Your task to perform on an android device: toggle translation in the chrome app Image 0: 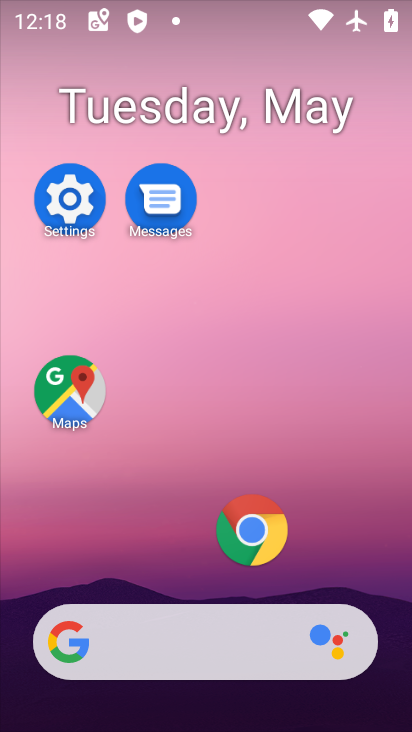
Step 0: drag from (205, 582) to (199, 213)
Your task to perform on an android device: toggle translation in the chrome app Image 1: 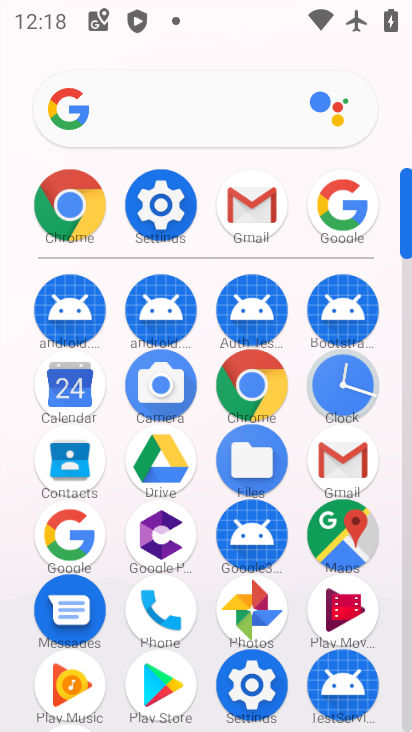
Step 1: click (254, 387)
Your task to perform on an android device: toggle translation in the chrome app Image 2: 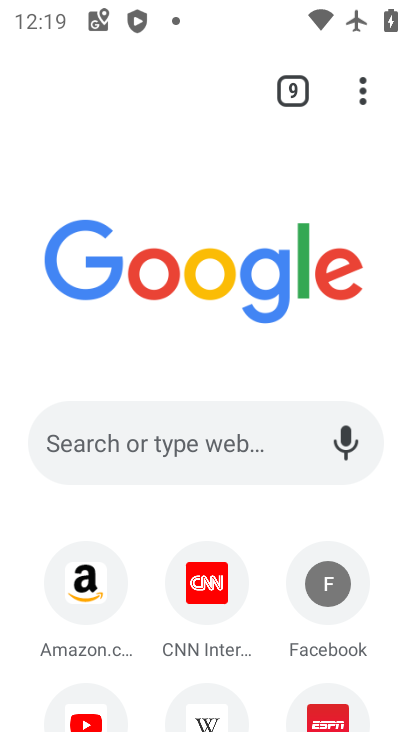
Step 2: click (364, 109)
Your task to perform on an android device: toggle translation in the chrome app Image 3: 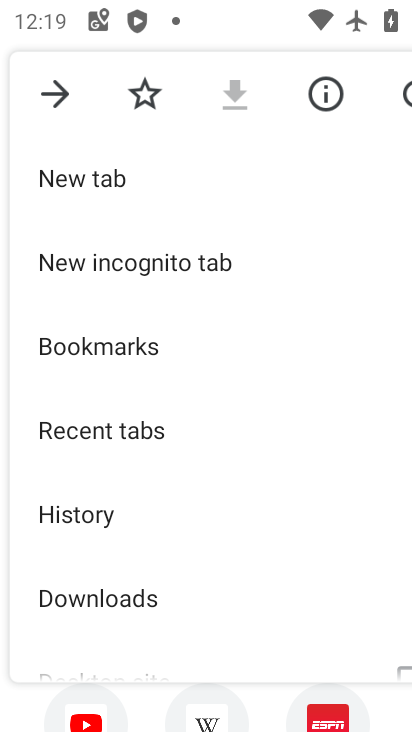
Step 3: drag from (211, 527) to (207, 141)
Your task to perform on an android device: toggle translation in the chrome app Image 4: 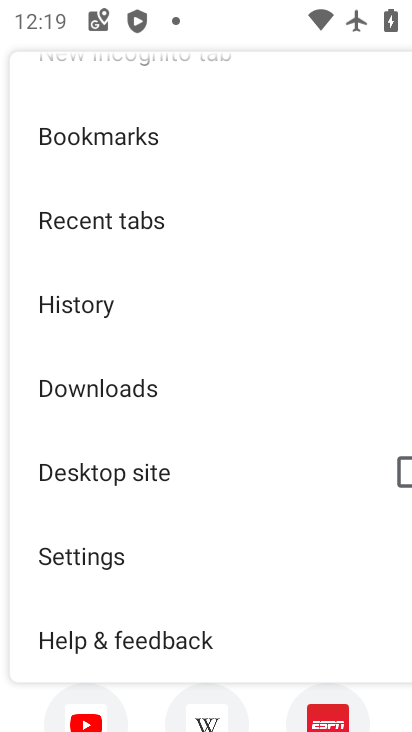
Step 4: click (136, 570)
Your task to perform on an android device: toggle translation in the chrome app Image 5: 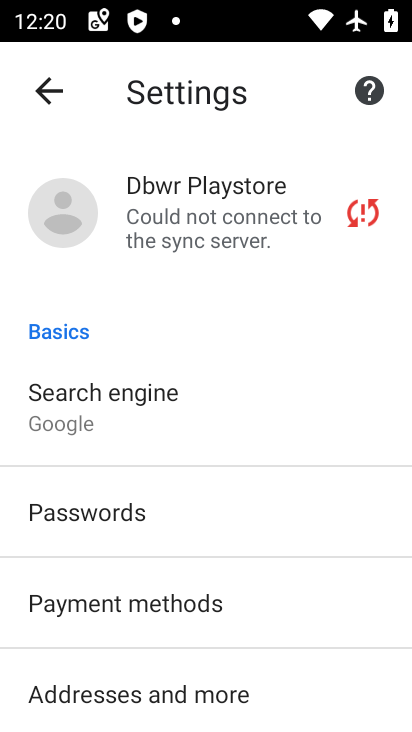
Step 5: drag from (154, 639) to (182, 231)
Your task to perform on an android device: toggle translation in the chrome app Image 6: 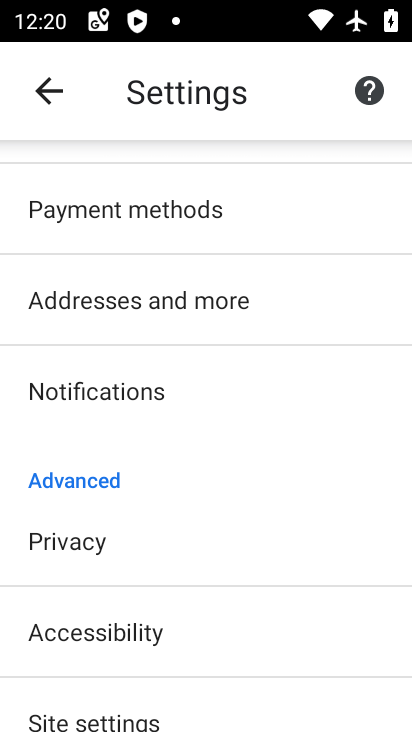
Step 6: drag from (148, 652) to (198, 263)
Your task to perform on an android device: toggle translation in the chrome app Image 7: 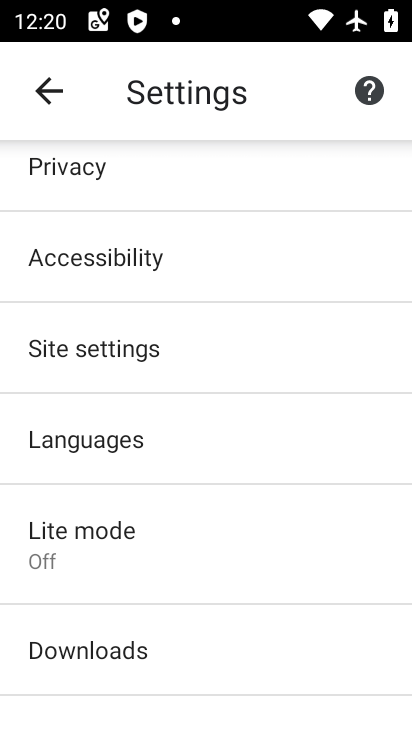
Step 7: click (136, 442)
Your task to perform on an android device: toggle translation in the chrome app Image 8: 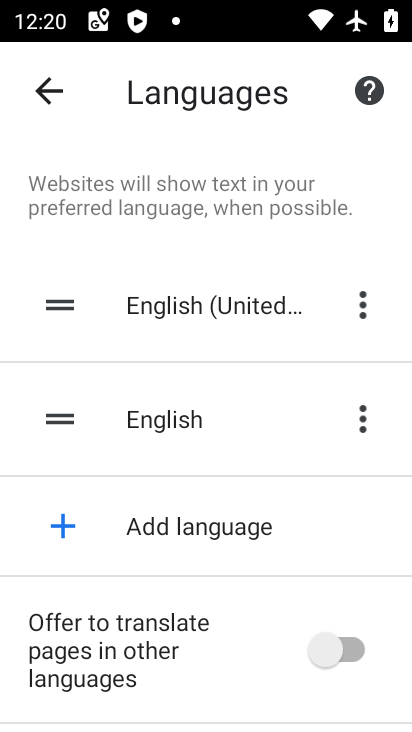
Step 8: click (332, 670)
Your task to perform on an android device: toggle translation in the chrome app Image 9: 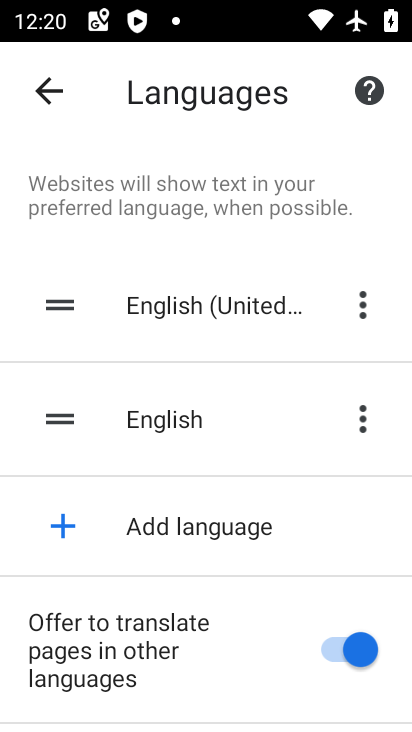
Step 9: task complete